Your task to perform on an android device: View the shopping cart on newegg. Search for usb-c to usb-a on newegg, select the first entry, and add it to the cart. Image 0: 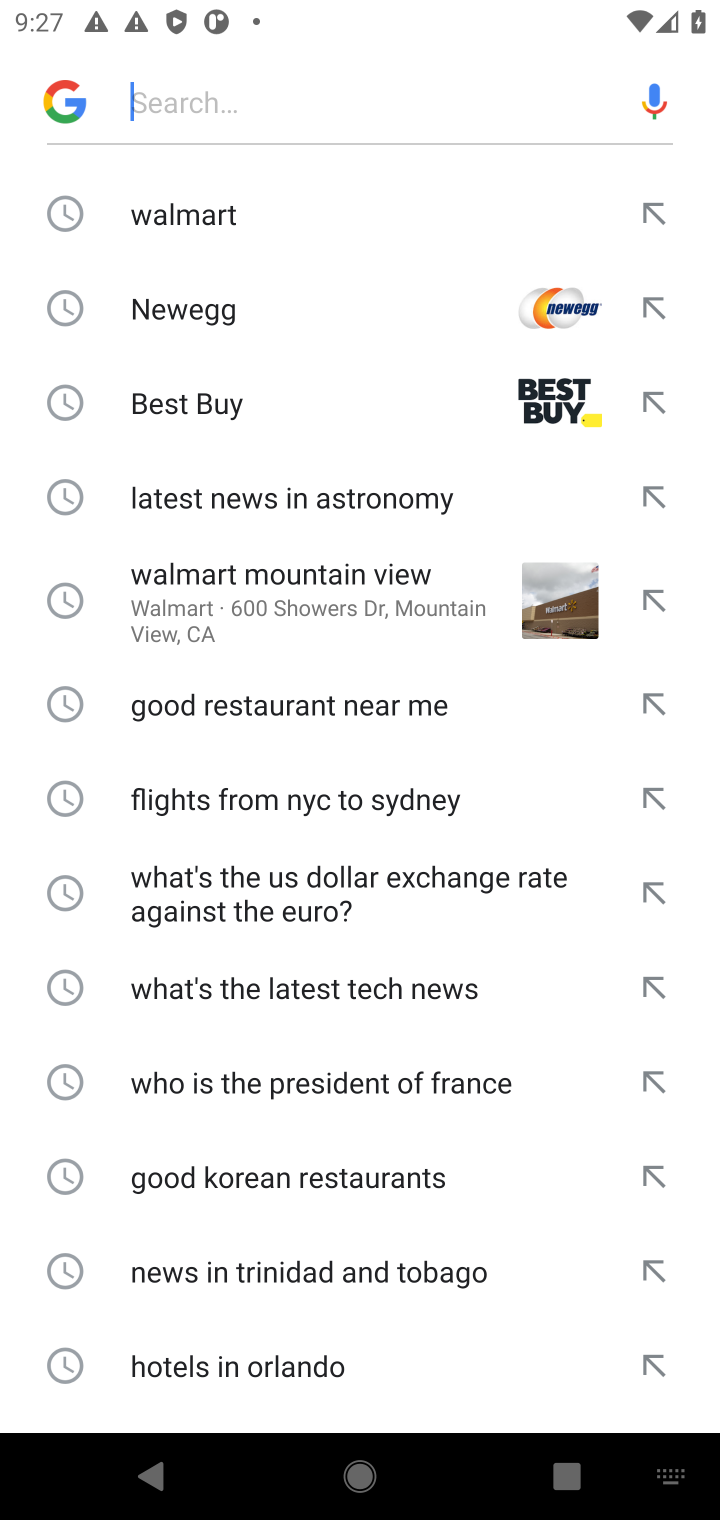
Step 0: type "newegg"
Your task to perform on an android device: View the shopping cart on newegg. Search for usb-c to usb-a on newegg, select the first entry, and add it to the cart. Image 1: 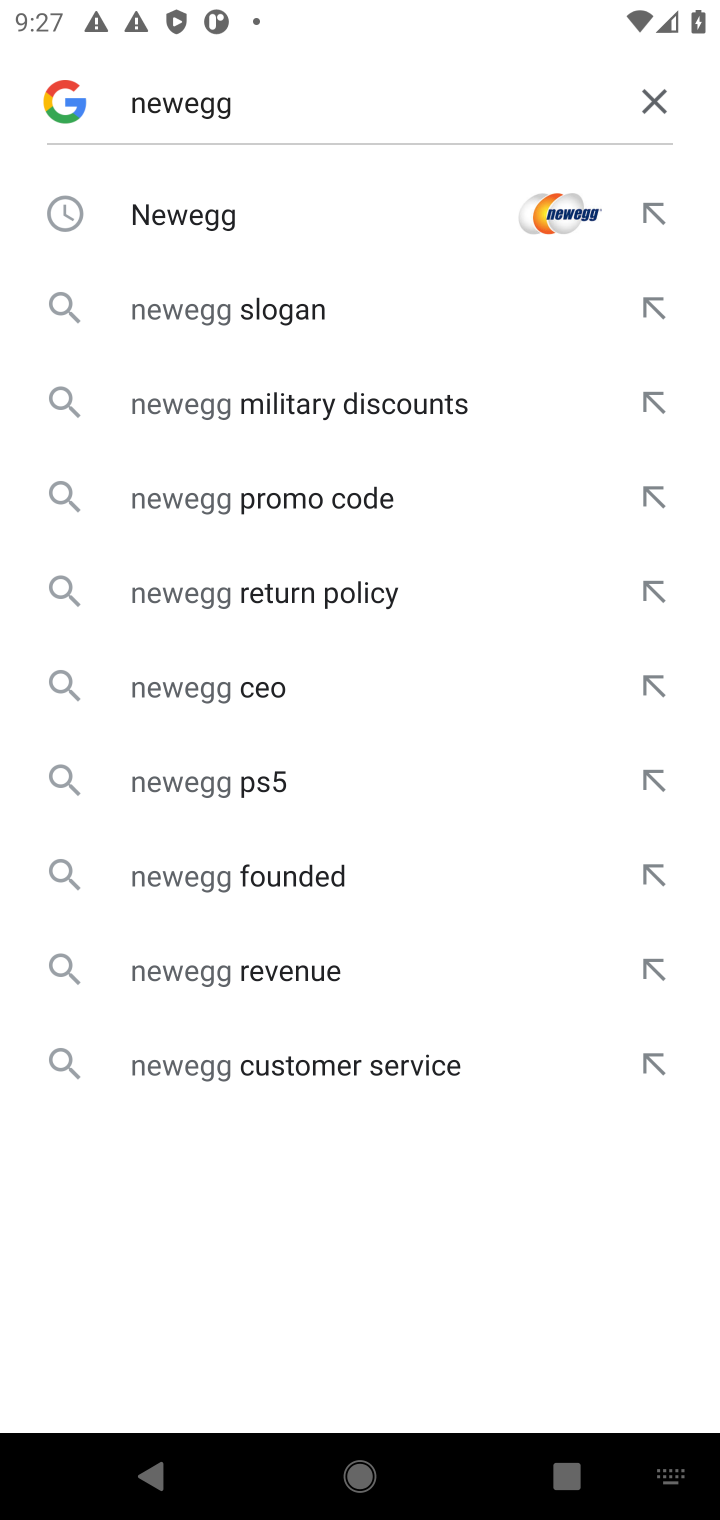
Step 1: click (232, 216)
Your task to perform on an android device: View the shopping cart on newegg. Search for usb-c to usb-a on newegg, select the first entry, and add it to the cart. Image 2: 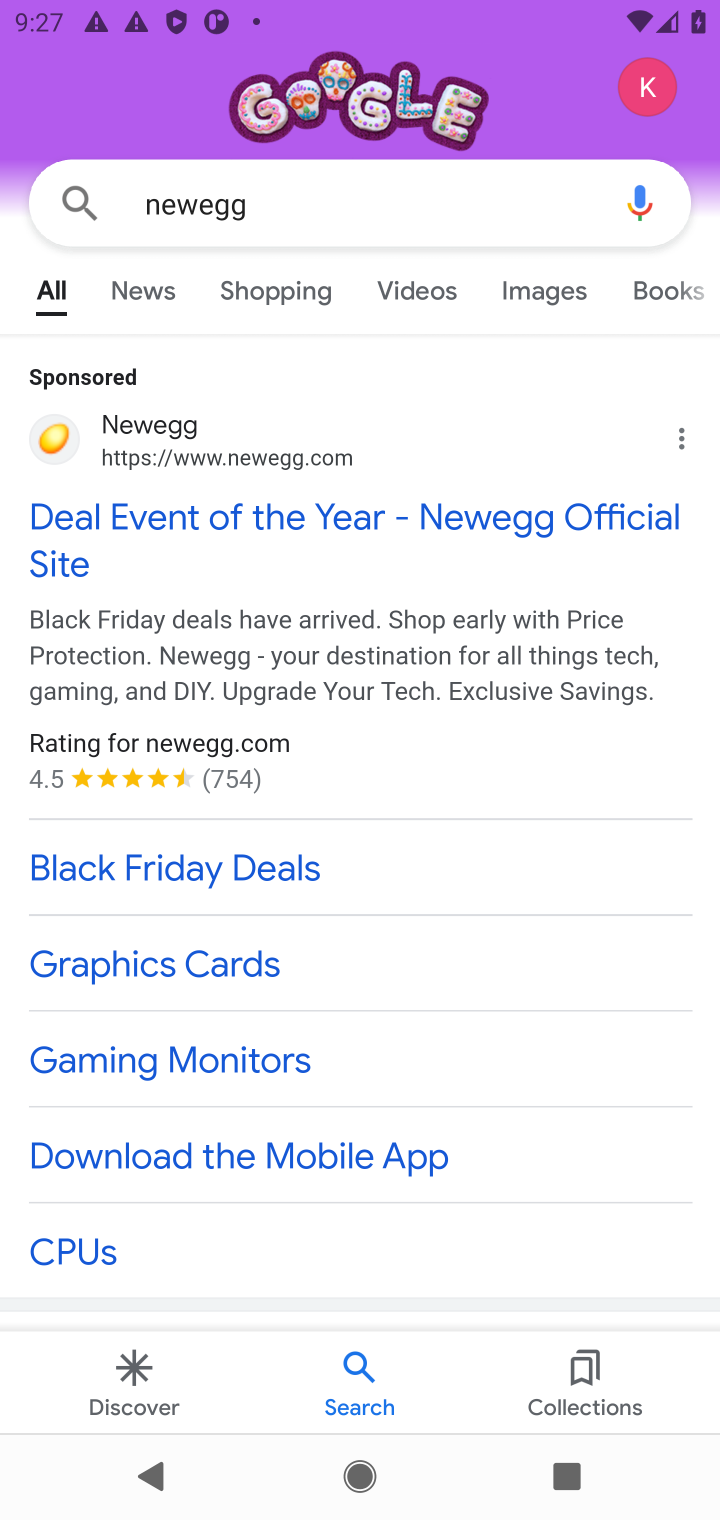
Step 2: click (243, 546)
Your task to perform on an android device: View the shopping cart on newegg. Search for usb-c to usb-a on newegg, select the first entry, and add it to the cart. Image 3: 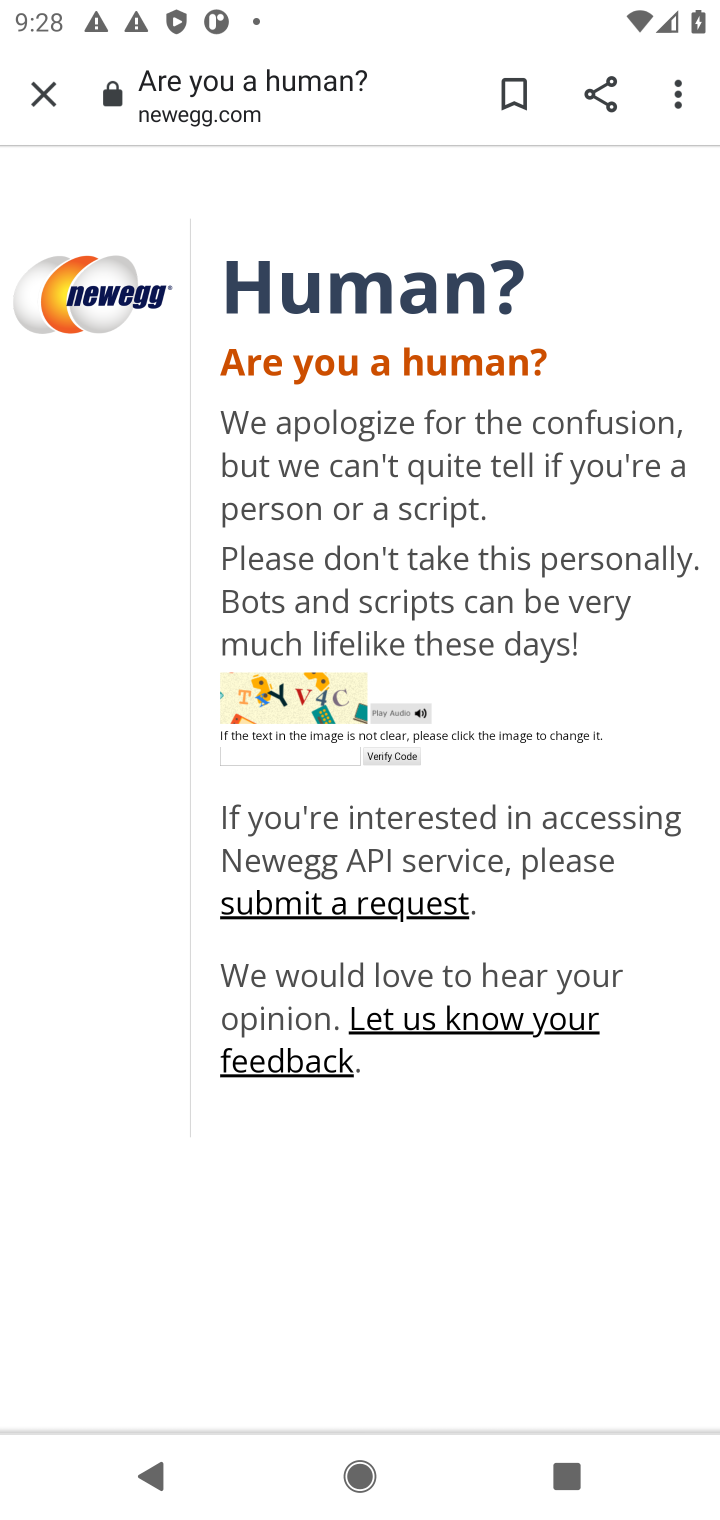
Step 3: task complete